Your task to perform on an android device: change the upload size in google photos Image 0: 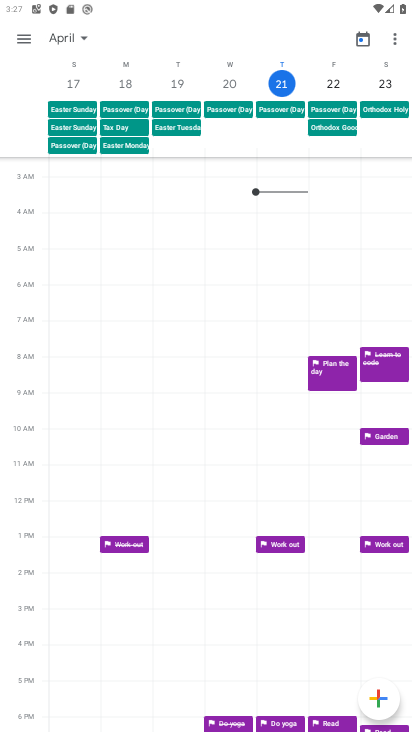
Step 0: press home button
Your task to perform on an android device: change the upload size in google photos Image 1: 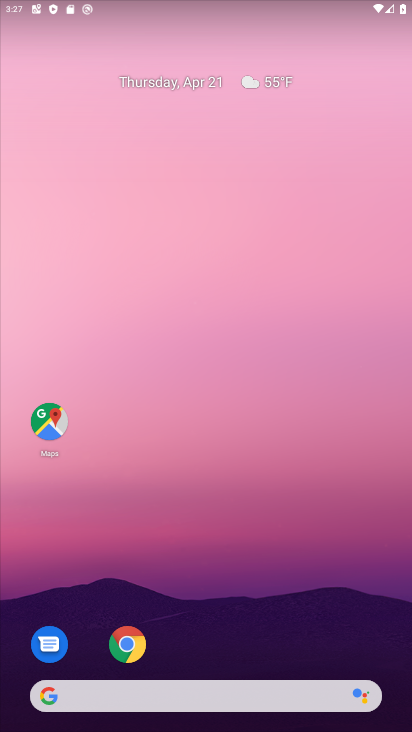
Step 1: drag from (196, 672) to (84, 18)
Your task to perform on an android device: change the upload size in google photos Image 2: 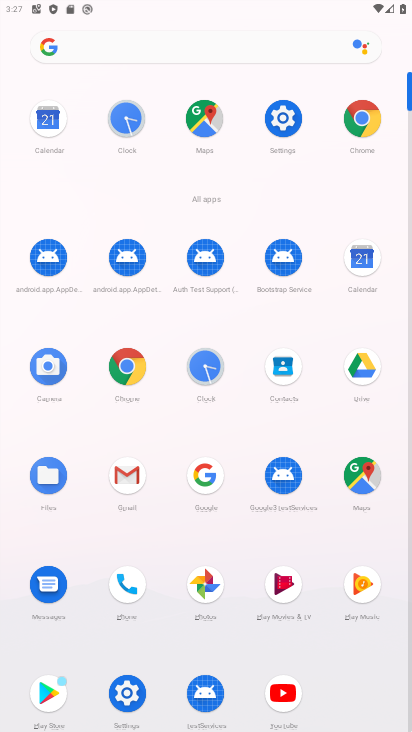
Step 2: click (205, 595)
Your task to perform on an android device: change the upload size in google photos Image 3: 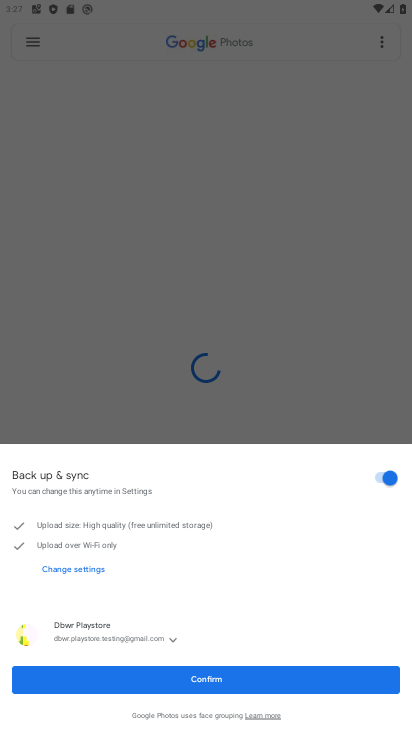
Step 3: click (244, 685)
Your task to perform on an android device: change the upload size in google photos Image 4: 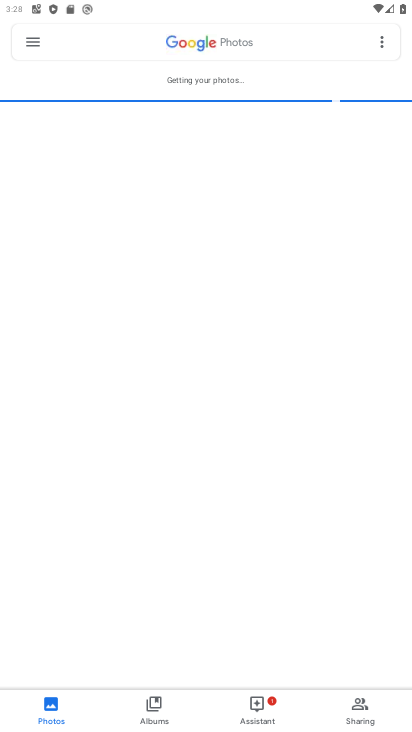
Step 4: click (31, 47)
Your task to perform on an android device: change the upload size in google photos Image 5: 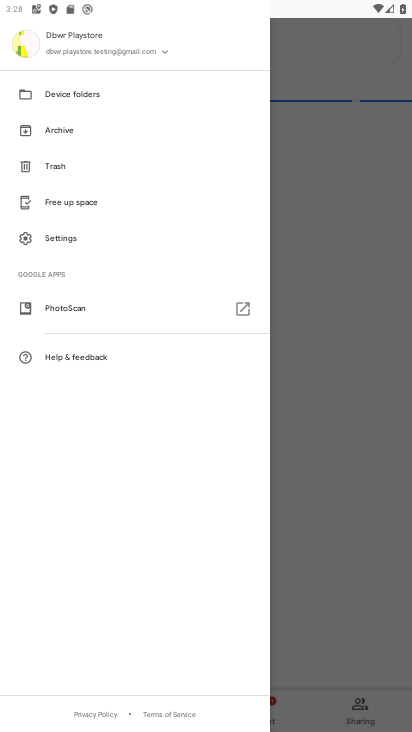
Step 5: click (63, 245)
Your task to perform on an android device: change the upload size in google photos Image 6: 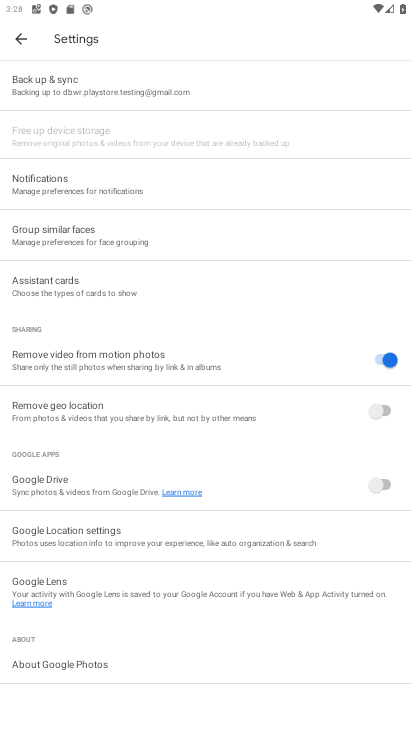
Step 6: click (65, 82)
Your task to perform on an android device: change the upload size in google photos Image 7: 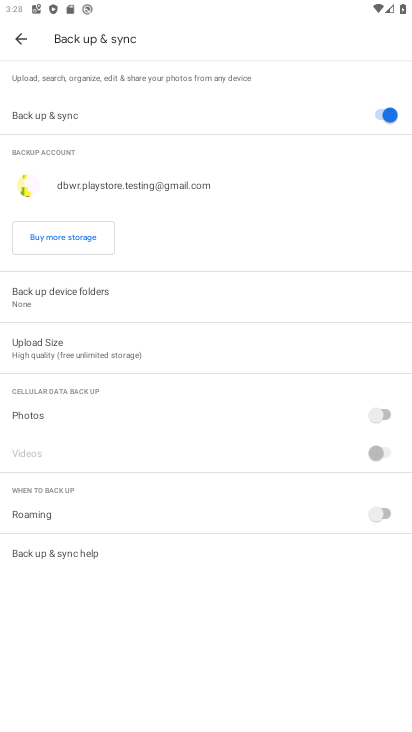
Step 7: click (82, 339)
Your task to perform on an android device: change the upload size in google photos Image 8: 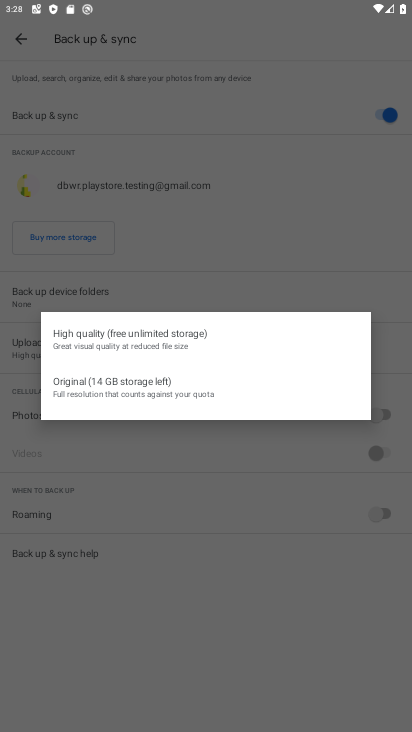
Step 8: click (145, 387)
Your task to perform on an android device: change the upload size in google photos Image 9: 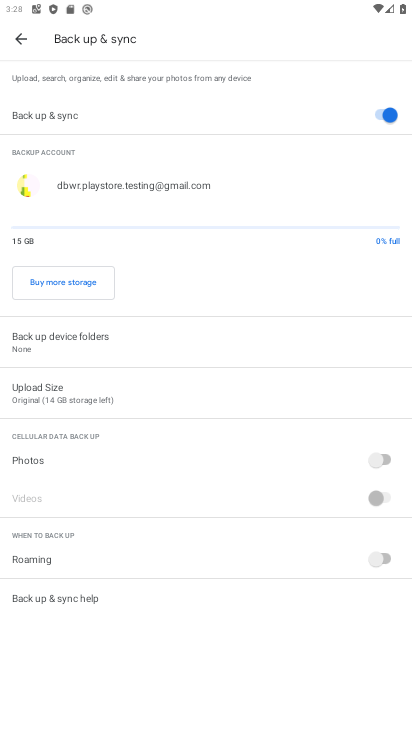
Step 9: task complete